Your task to perform on an android device: see creations saved in the google photos Image 0: 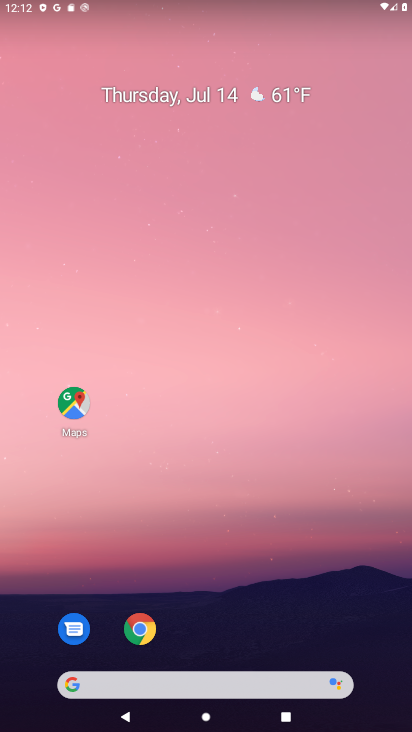
Step 0: drag from (198, 644) to (158, 88)
Your task to perform on an android device: see creations saved in the google photos Image 1: 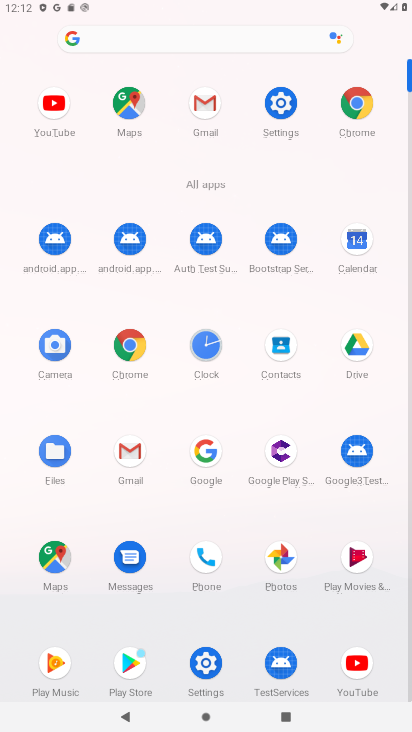
Step 1: click (286, 568)
Your task to perform on an android device: see creations saved in the google photos Image 2: 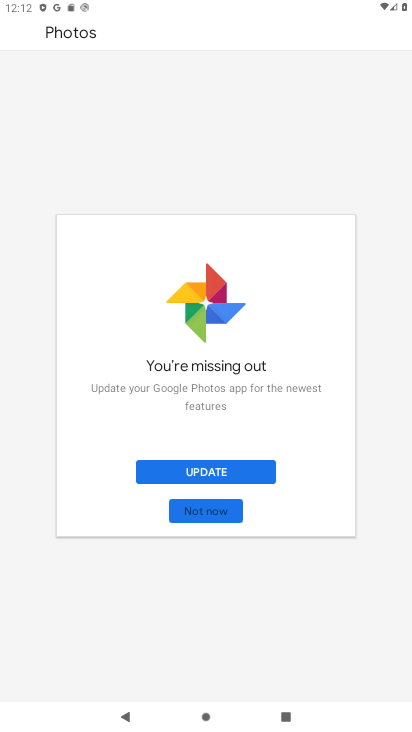
Step 2: click (220, 513)
Your task to perform on an android device: see creations saved in the google photos Image 3: 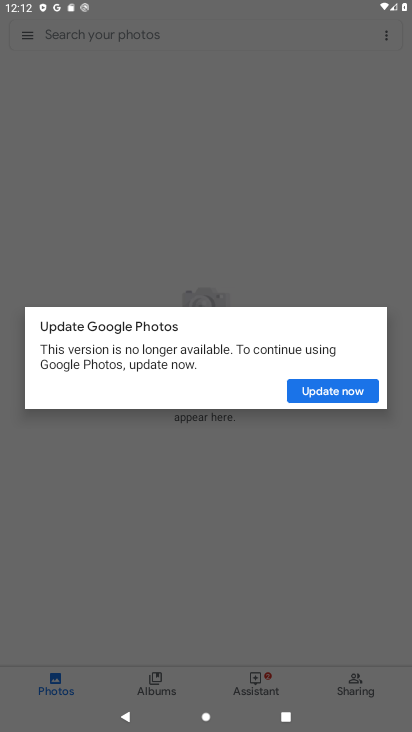
Step 3: click (336, 404)
Your task to perform on an android device: see creations saved in the google photos Image 4: 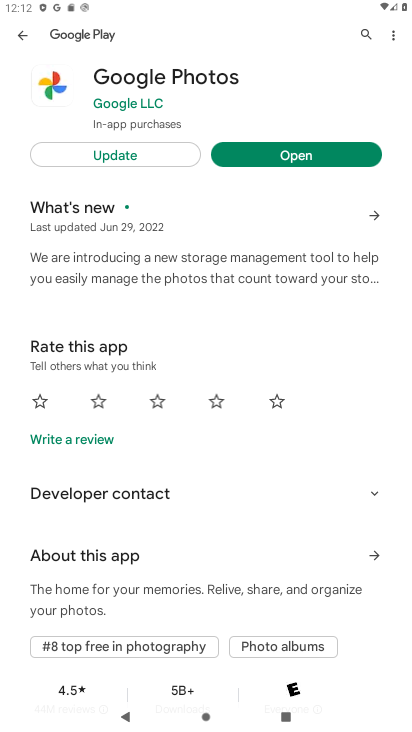
Step 4: click (282, 163)
Your task to perform on an android device: see creations saved in the google photos Image 5: 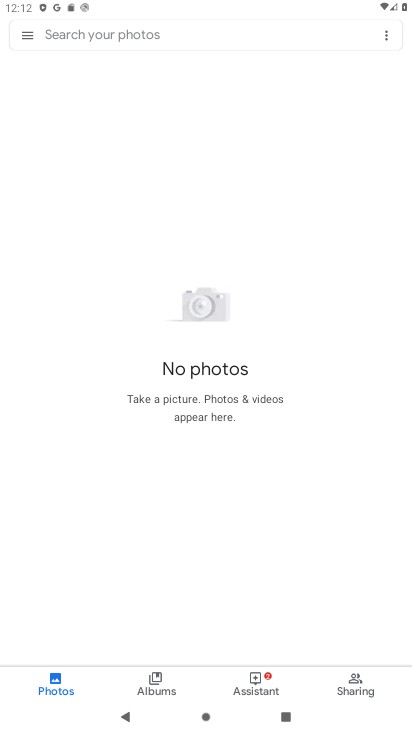
Step 5: click (247, 681)
Your task to perform on an android device: see creations saved in the google photos Image 6: 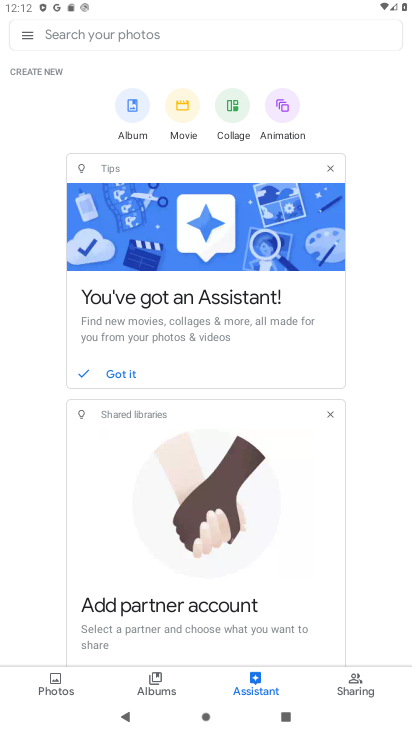
Step 6: task complete